Your task to perform on an android device: Open network settings Image 0: 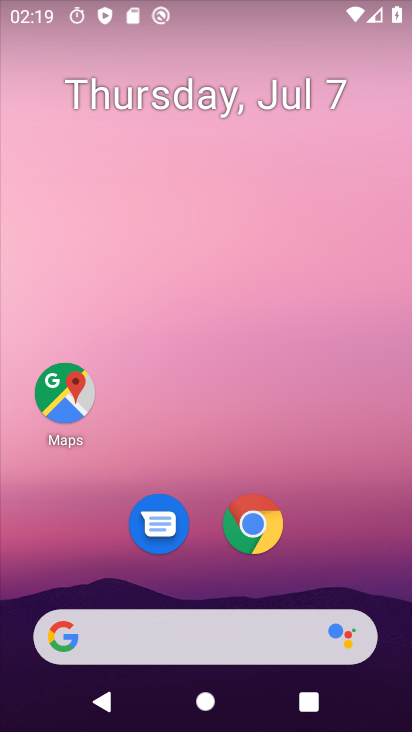
Step 0: drag from (341, 551) to (304, 29)
Your task to perform on an android device: Open network settings Image 1: 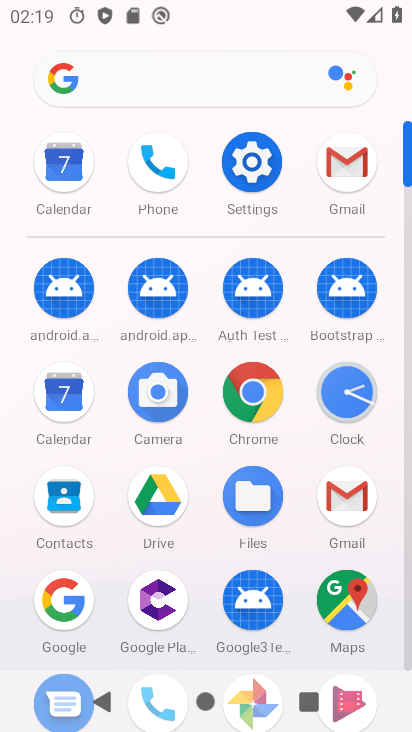
Step 1: click (254, 161)
Your task to perform on an android device: Open network settings Image 2: 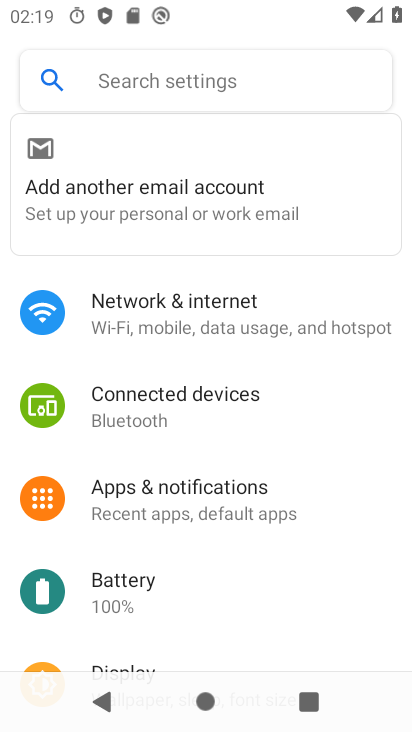
Step 2: click (232, 315)
Your task to perform on an android device: Open network settings Image 3: 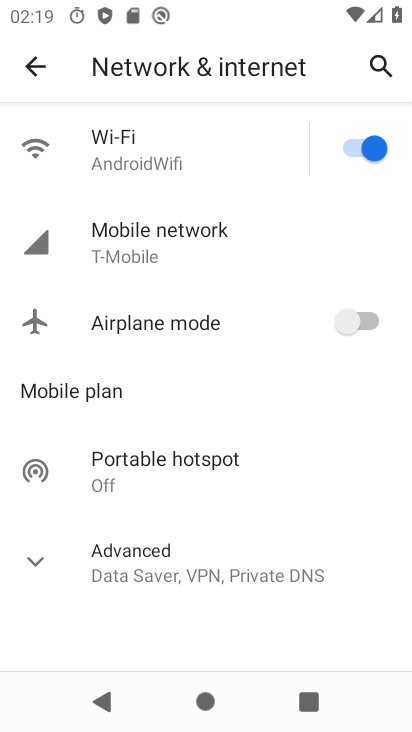
Step 3: task complete